Your task to perform on an android device: turn off data saver in the chrome app Image 0: 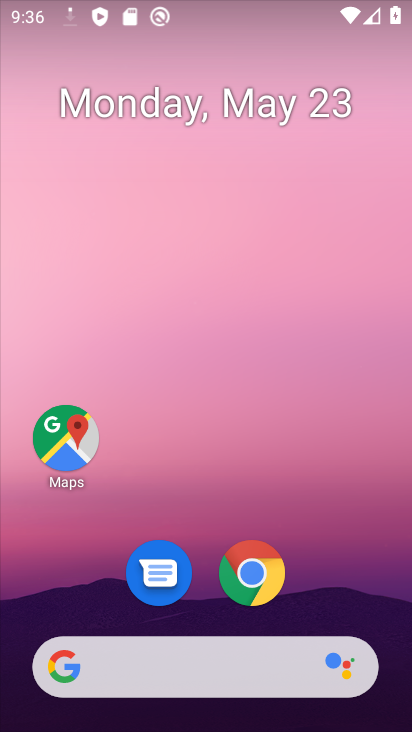
Step 0: click (251, 576)
Your task to perform on an android device: turn off data saver in the chrome app Image 1: 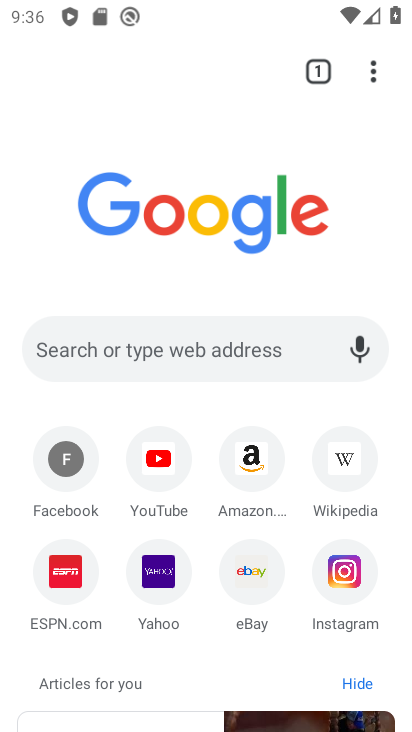
Step 1: click (373, 67)
Your task to perform on an android device: turn off data saver in the chrome app Image 2: 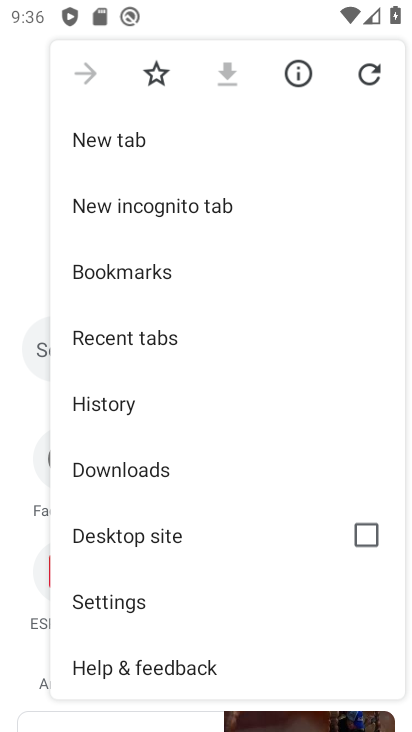
Step 2: click (124, 596)
Your task to perform on an android device: turn off data saver in the chrome app Image 3: 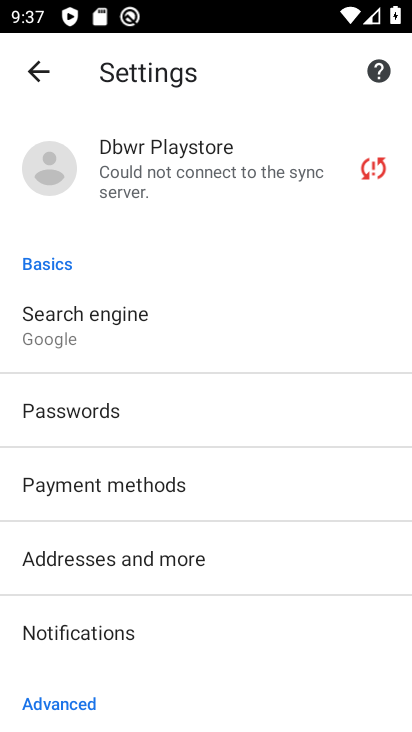
Step 3: drag from (93, 662) to (106, 296)
Your task to perform on an android device: turn off data saver in the chrome app Image 4: 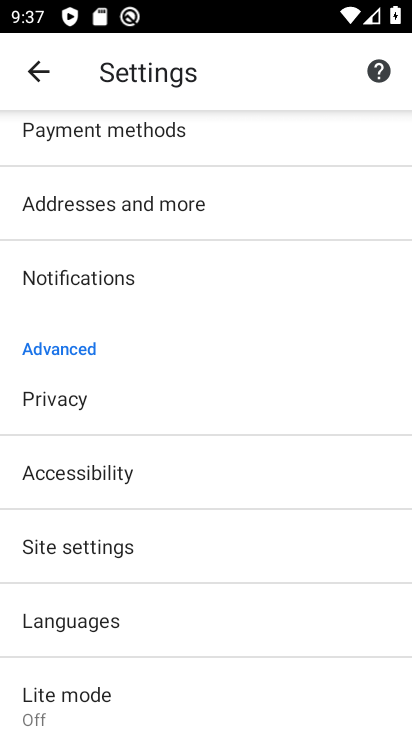
Step 4: click (78, 697)
Your task to perform on an android device: turn off data saver in the chrome app Image 5: 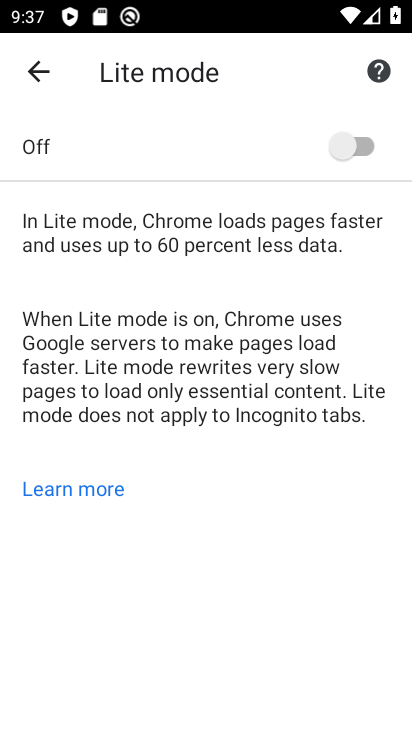
Step 5: task complete